Your task to perform on an android device: Go to accessibility settings Image 0: 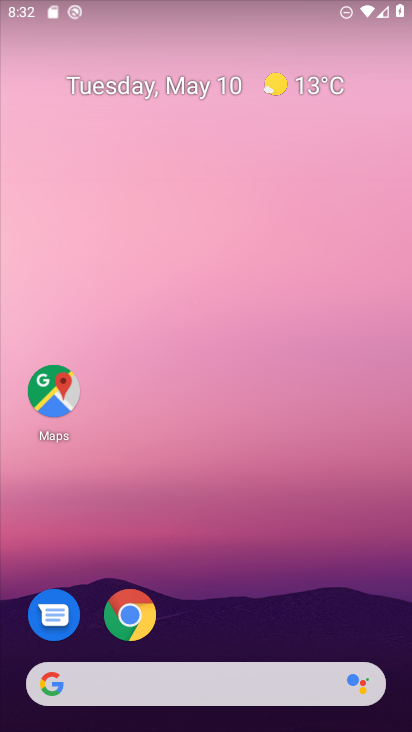
Step 0: drag from (244, 531) to (171, 51)
Your task to perform on an android device: Go to accessibility settings Image 1: 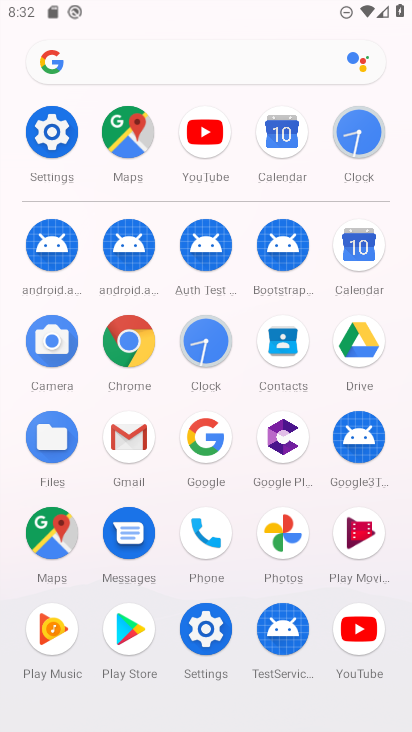
Step 1: click (59, 135)
Your task to perform on an android device: Go to accessibility settings Image 2: 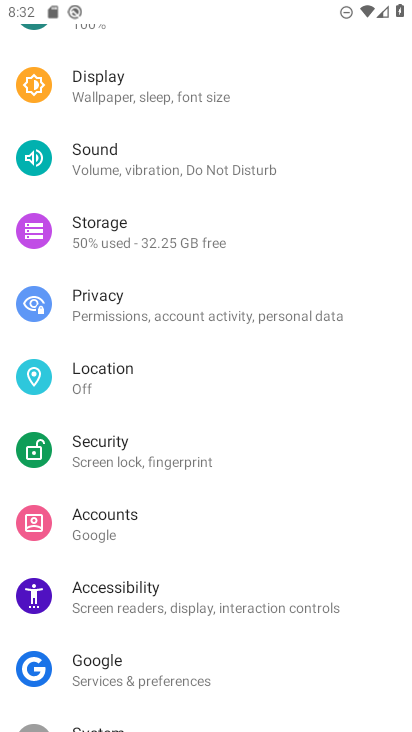
Step 2: click (110, 597)
Your task to perform on an android device: Go to accessibility settings Image 3: 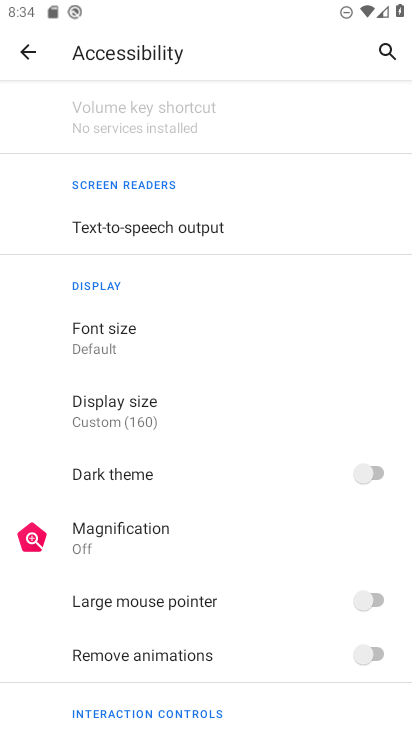
Step 3: task complete